Your task to perform on an android device: empty trash in the gmail app Image 0: 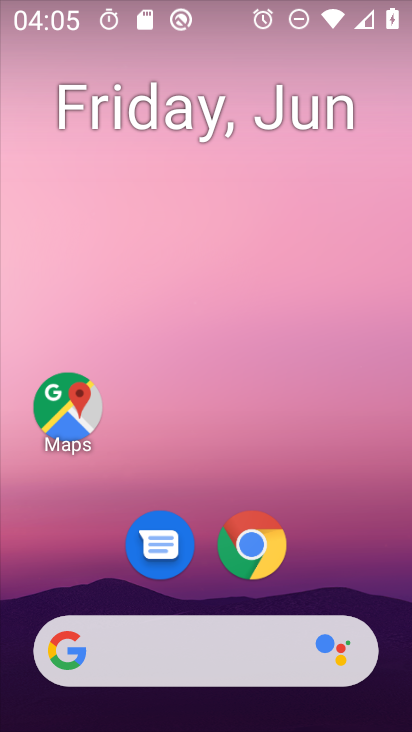
Step 0: drag from (315, 530) to (305, 51)
Your task to perform on an android device: empty trash in the gmail app Image 1: 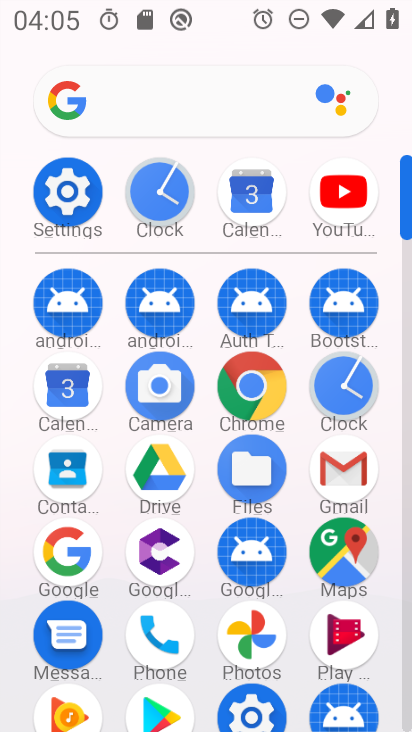
Step 1: click (348, 475)
Your task to perform on an android device: empty trash in the gmail app Image 2: 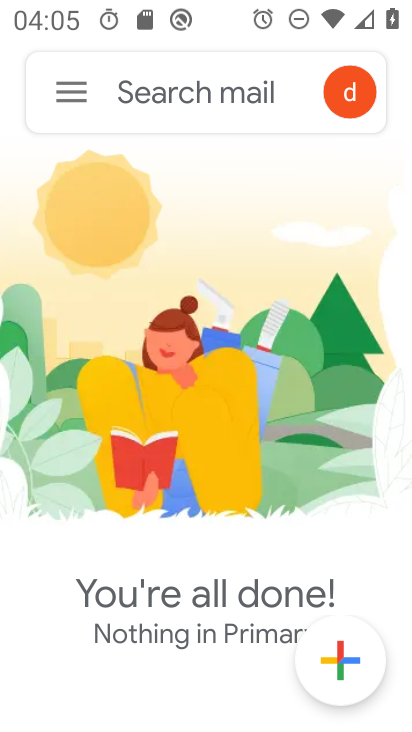
Step 2: click (61, 82)
Your task to perform on an android device: empty trash in the gmail app Image 3: 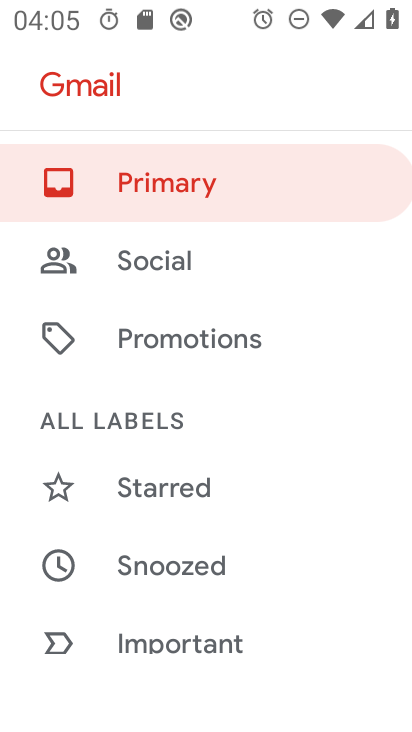
Step 3: drag from (180, 549) to (166, 45)
Your task to perform on an android device: empty trash in the gmail app Image 4: 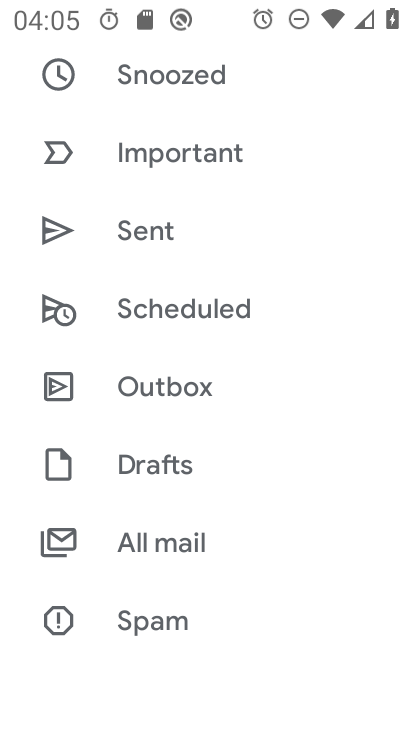
Step 4: drag from (199, 586) to (200, 183)
Your task to perform on an android device: empty trash in the gmail app Image 5: 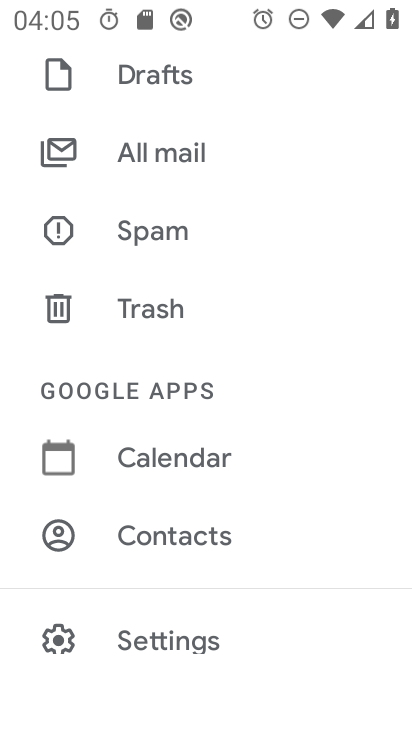
Step 5: click (171, 327)
Your task to perform on an android device: empty trash in the gmail app Image 6: 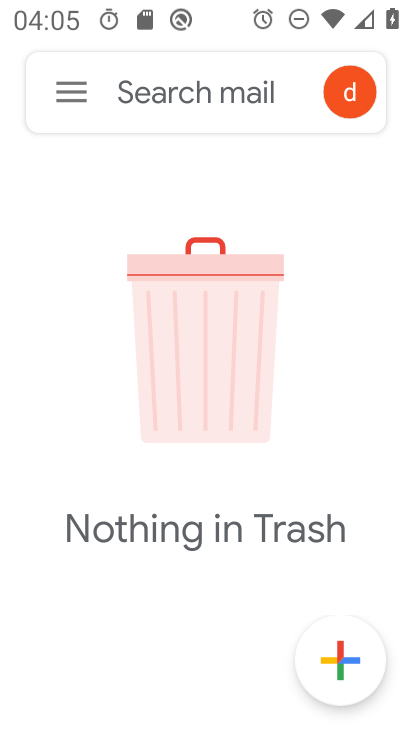
Step 6: task complete